Your task to perform on an android device: Open Google Chrome and click the shortcut for Amazon.com Image 0: 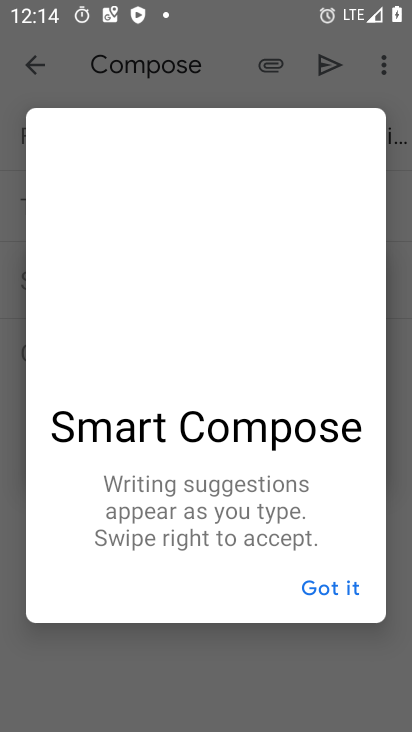
Step 0: press home button
Your task to perform on an android device: Open Google Chrome and click the shortcut for Amazon.com Image 1: 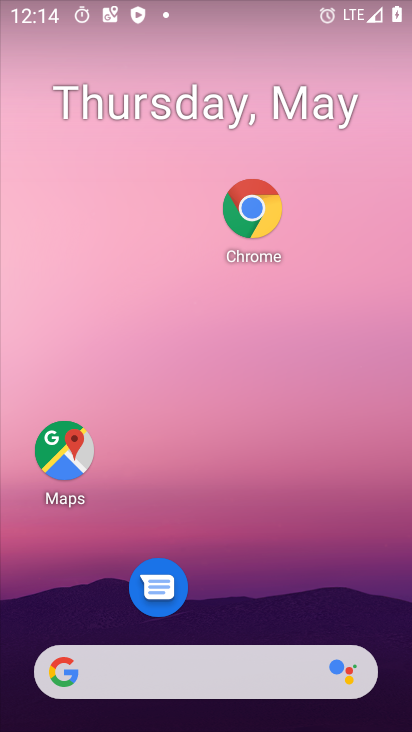
Step 1: drag from (218, 612) to (191, 37)
Your task to perform on an android device: Open Google Chrome and click the shortcut for Amazon.com Image 2: 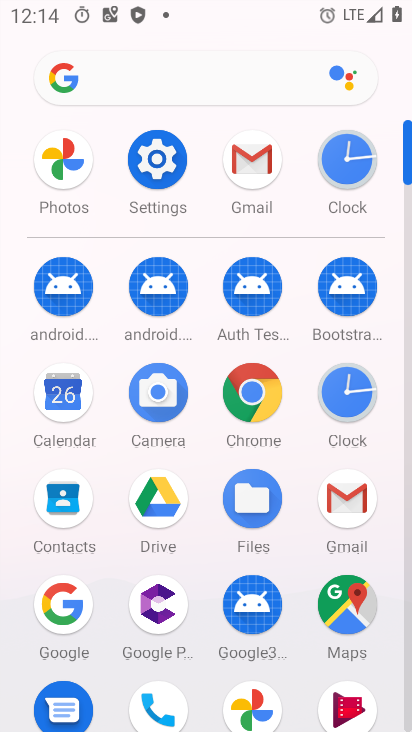
Step 2: click (257, 421)
Your task to perform on an android device: Open Google Chrome and click the shortcut for Amazon.com Image 3: 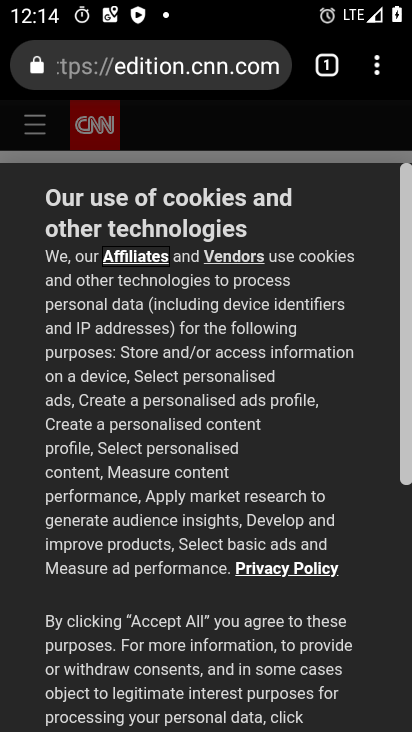
Step 3: press back button
Your task to perform on an android device: Open Google Chrome and click the shortcut for Amazon.com Image 4: 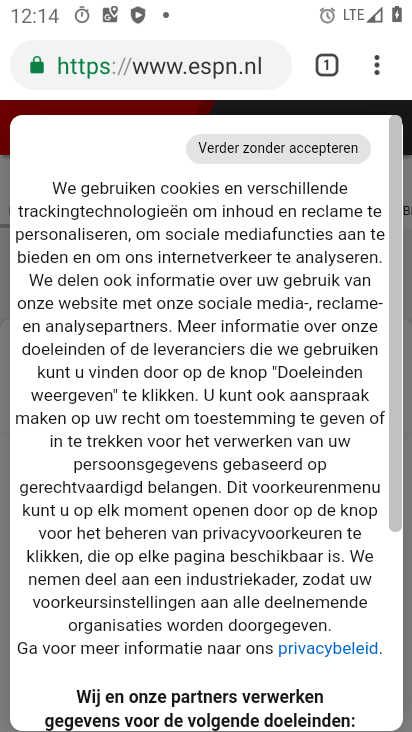
Step 4: press back button
Your task to perform on an android device: Open Google Chrome and click the shortcut for Amazon.com Image 5: 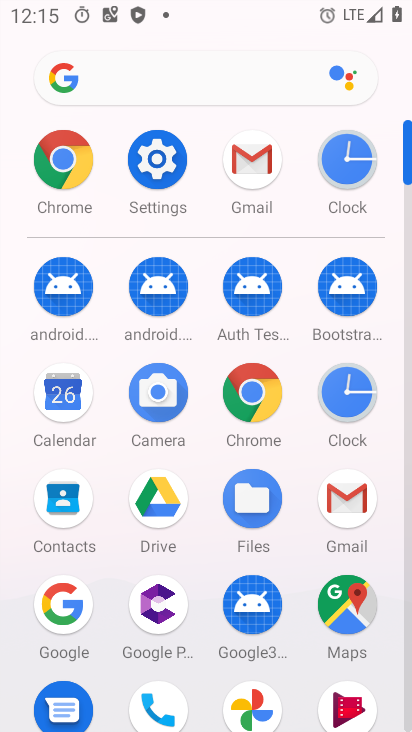
Step 5: click (244, 434)
Your task to perform on an android device: Open Google Chrome and click the shortcut for Amazon.com Image 6: 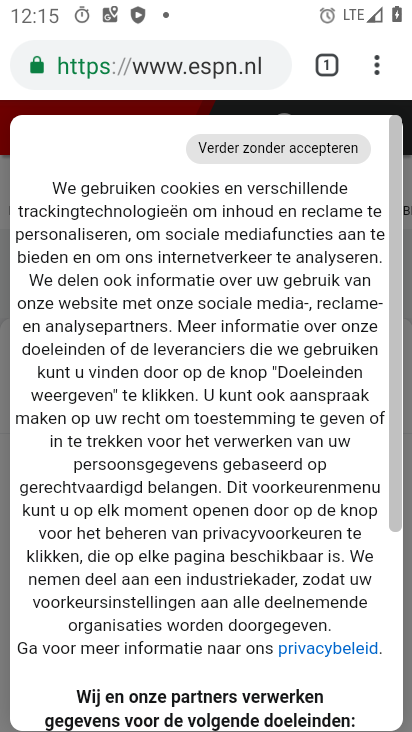
Step 6: click (182, 71)
Your task to perform on an android device: Open Google Chrome and click the shortcut for Amazon.com Image 7: 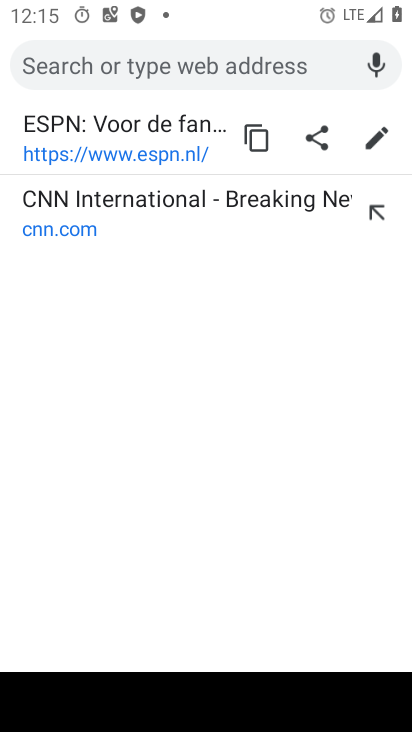
Step 7: type "www.amazon.com"
Your task to perform on an android device: Open Google Chrome and click the shortcut for Amazon.com Image 8: 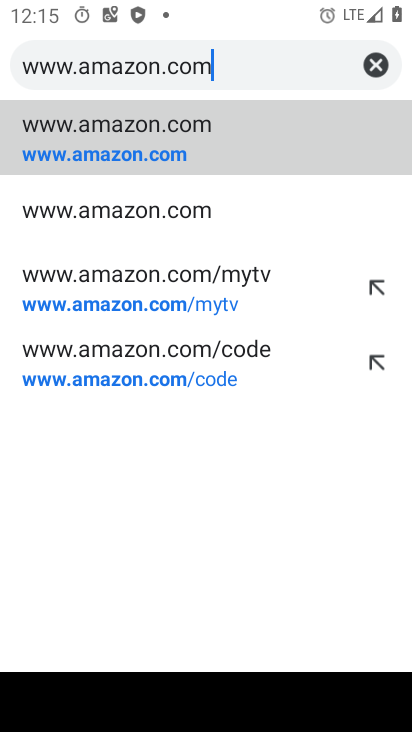
Step 8: click (64, 161)
Your task to perform on an android device: Open Google Chrome and click the shortcut for Amazon.com Image 9: 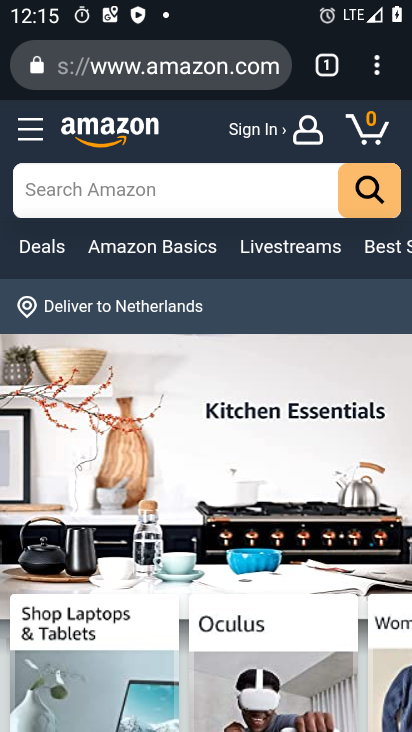
Step 9: task complete